Your task to perform on an android device: Search for pizza restaurants on Maps Image 0: 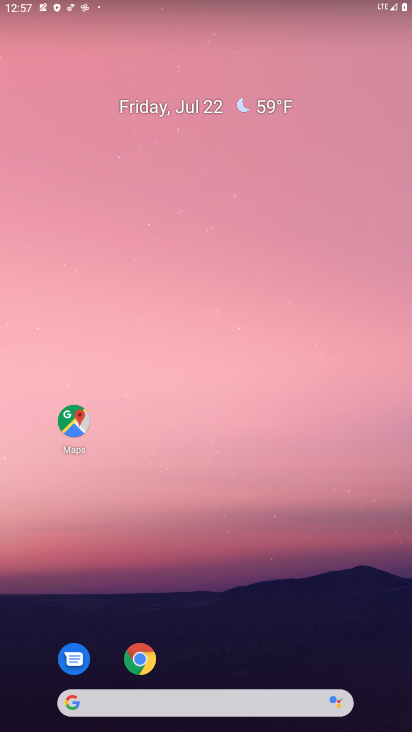
Step 0: drag from (267, 640) to (216, 78)
Your task to perform on an android device: Search for pizza restaurants on Maps Image 1: 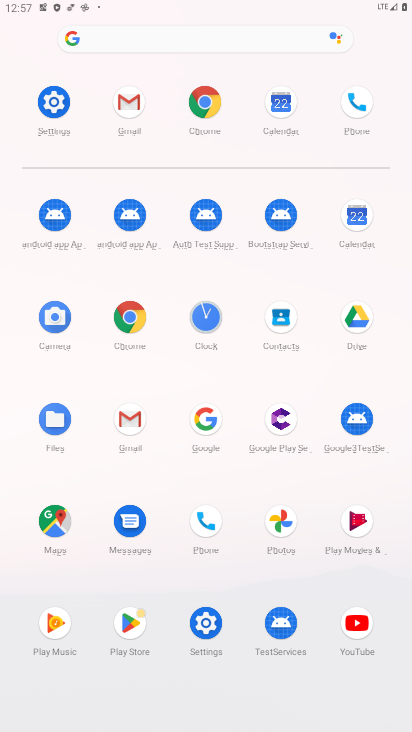
Step 1: click (47, 530)
Your task to perform on an android device: Search for pizza restaurants on Maps Image 2: 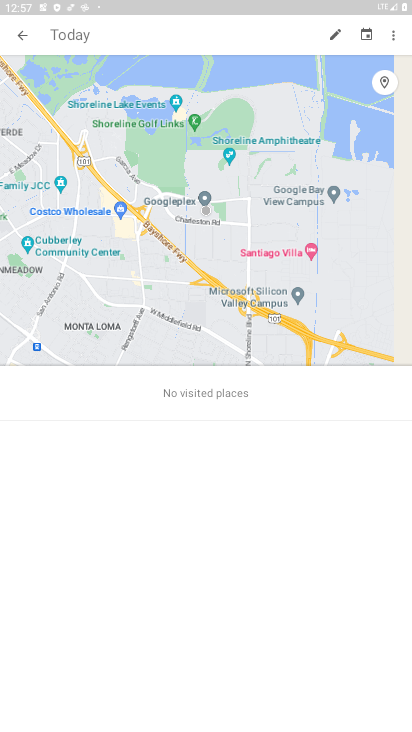
Step 2: click (26, 43)
Your task to perform on an android device: Search for pizza restaurants on Maps Image 3: 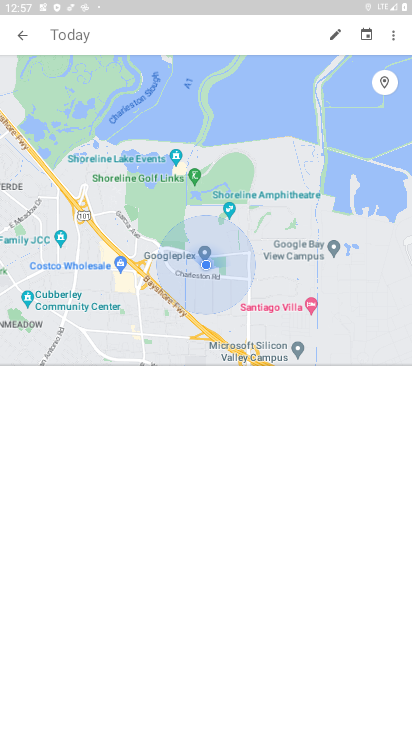
Step 3: click (29, 35)
Your task to perform on an android device: Search for pizza restaurants on Maps Image 4: 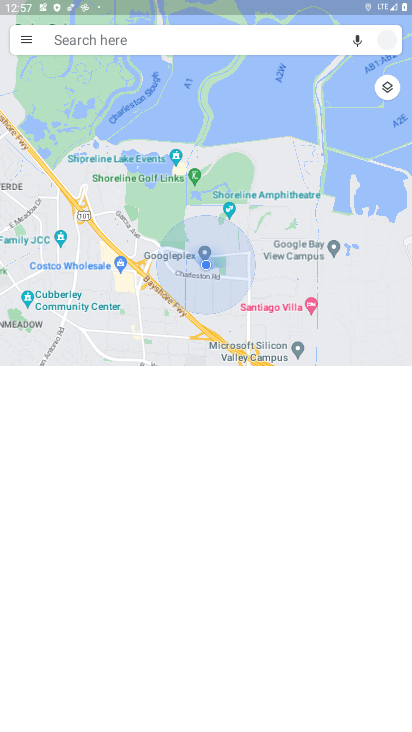
Step 4: click (128, 40)
Your task to perform on an android device: Search for pizza restaurants on Maps Image 5: 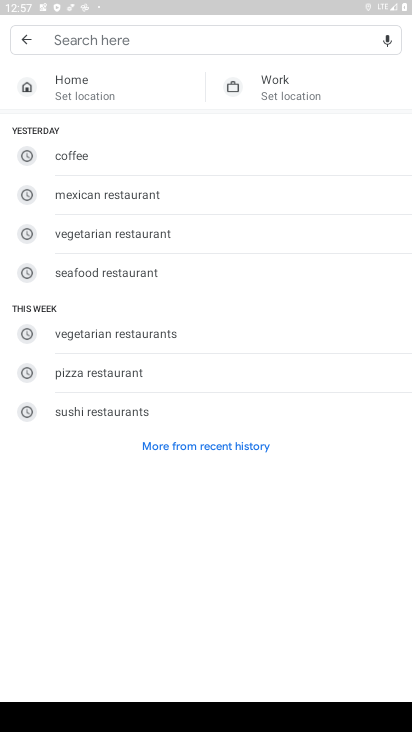
Step 5: type "pizza restaurants"
Your task to perform on an android device: Search for pizza restaurants on Maps Image 6: 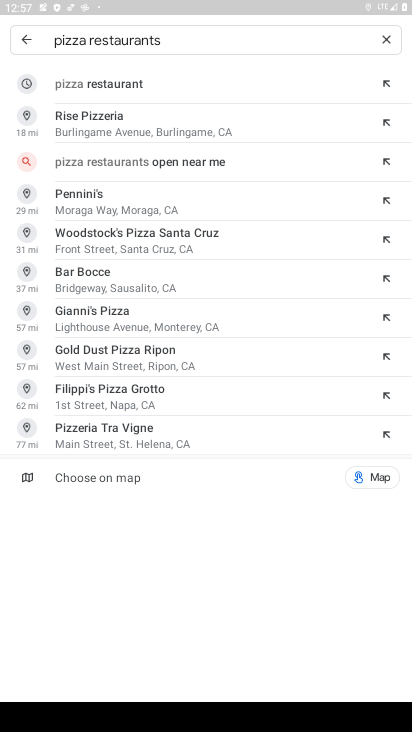
Step 6: click (118, 86)
Your task to perform on an android device: Search for pizza restaurants on Maps Image 7: 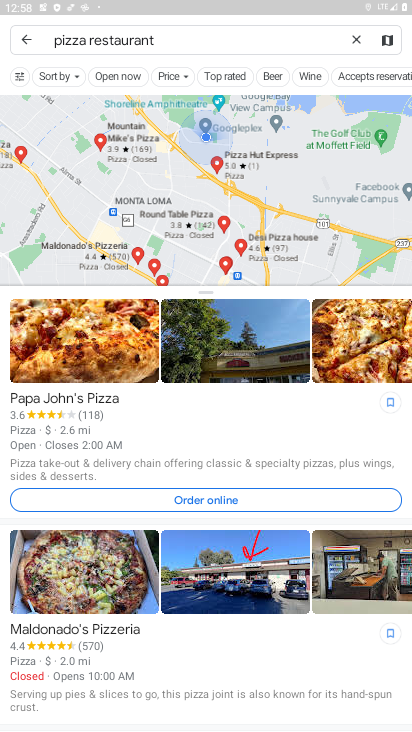
Step 7: task complete